Your task to perform on an android device: uninstall "Firefox Browser" Image 0: 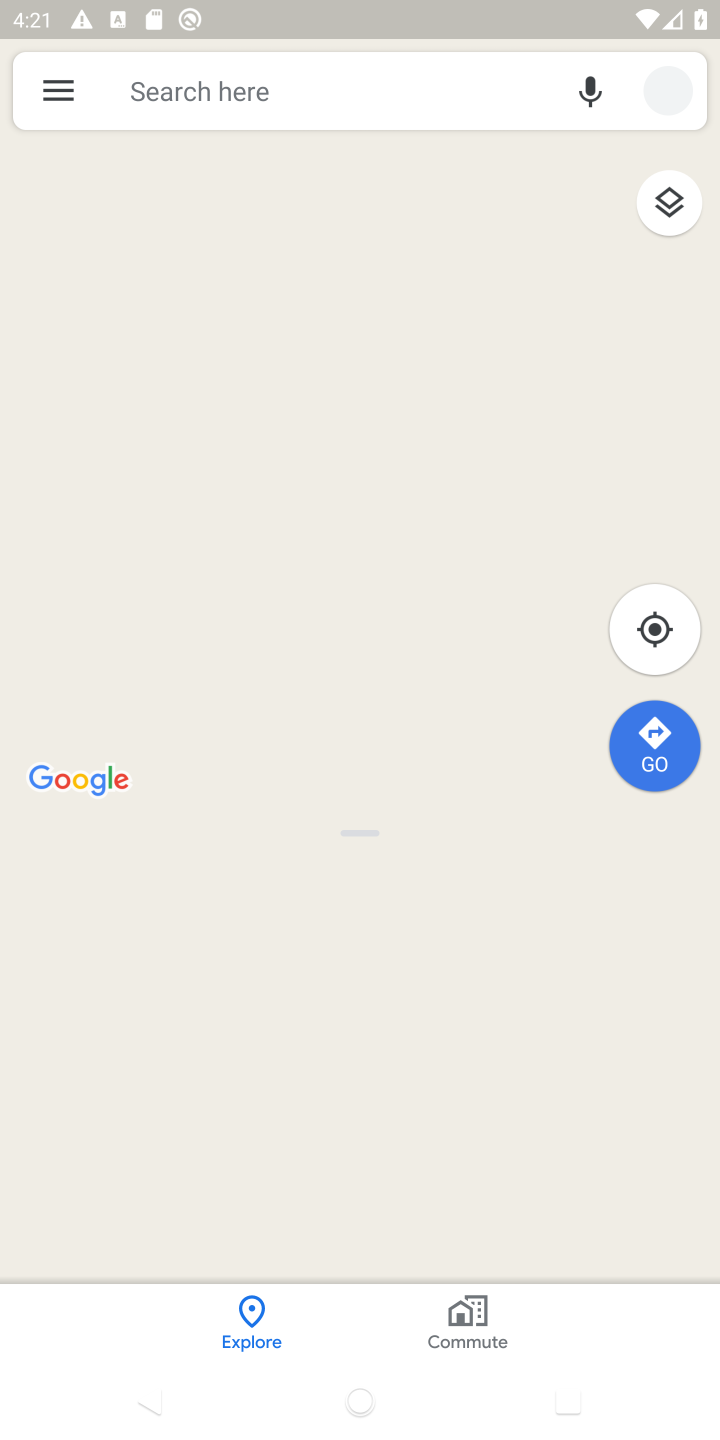
Step 0: press home button
Your task to perform on an android device: uninstall "Firefox Browser" Image 1: 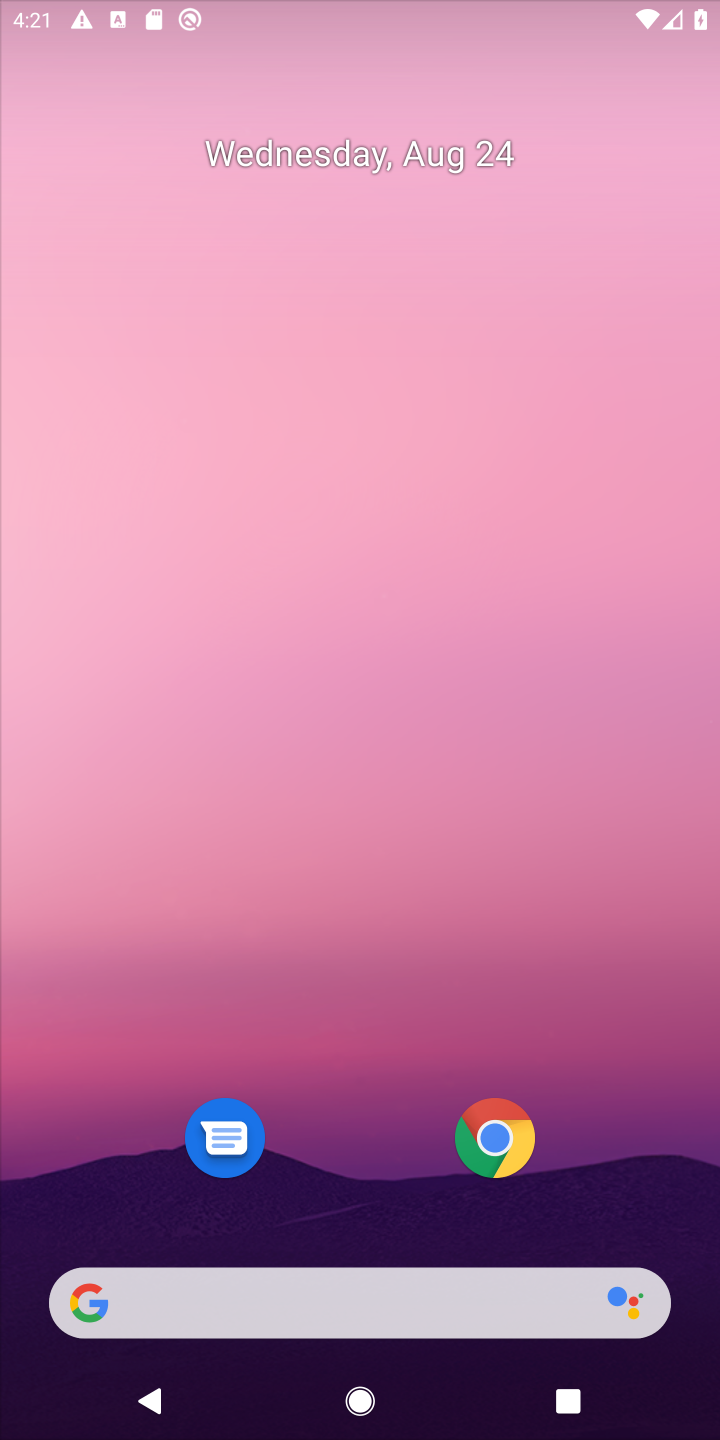
Step 1: press home button
Your task to perform on an android device: uninstall "Firefox Browser" Image 2: 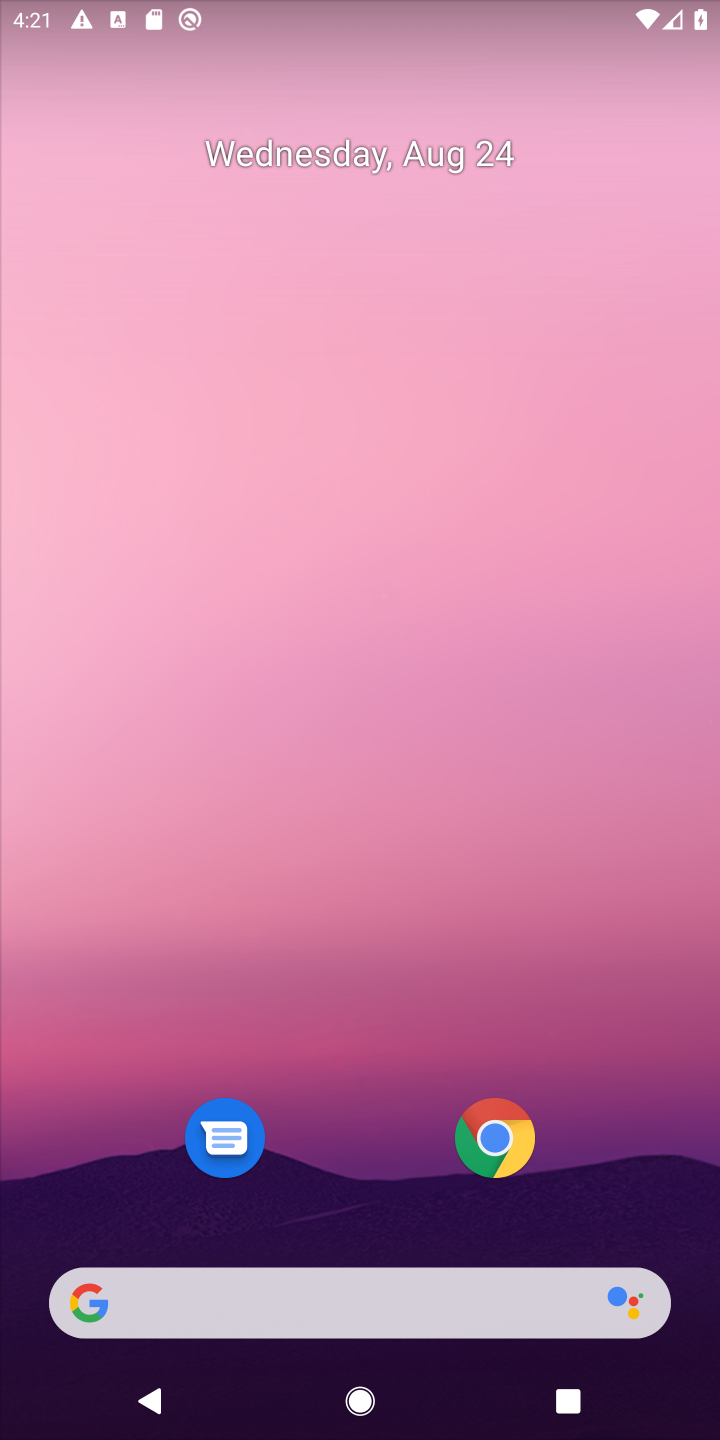
Step 2: drag from (414, 836) to (408, 251)
Your task to perform on an android device: uninstall "Firefox Browser" Image 3: 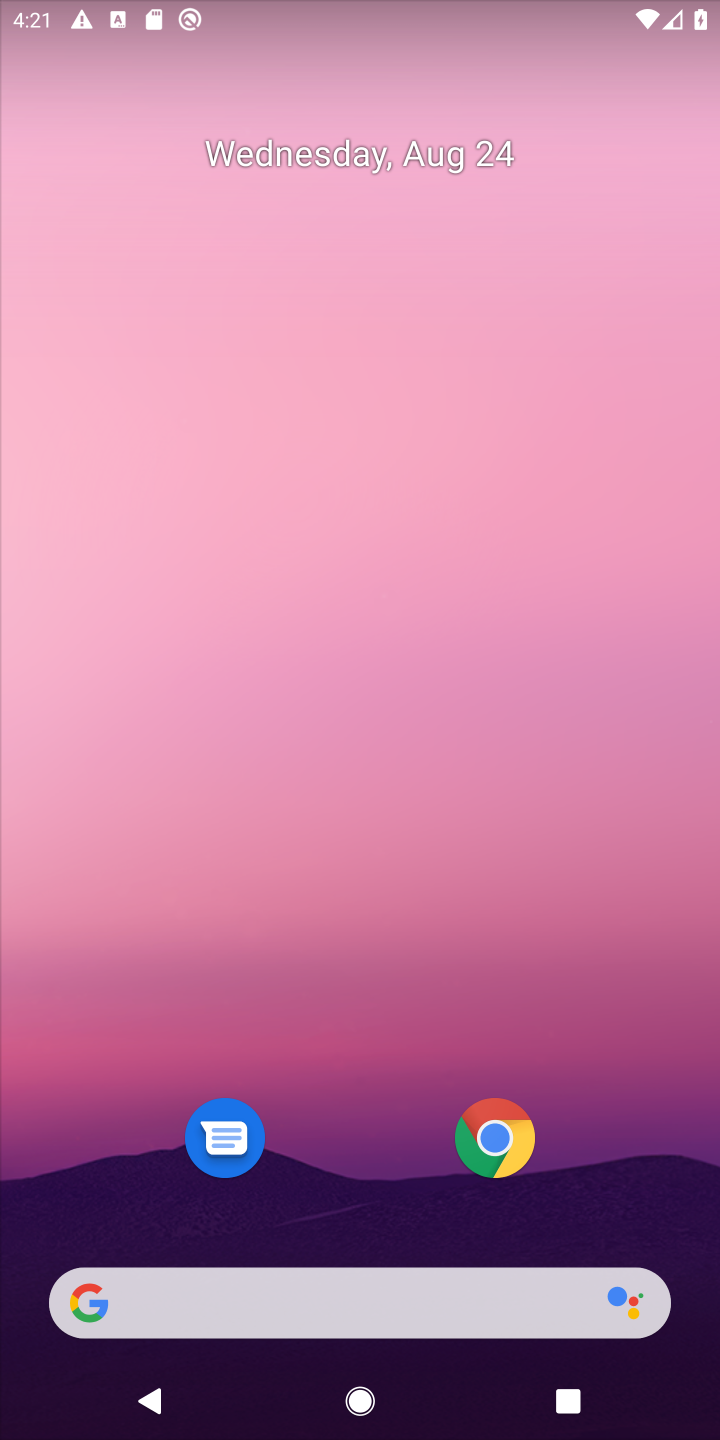
Step 3: drag from (384, 1229) to (332, 149)
Your task to perform on an android device: uninstall "Firefox Browser" Image 4: 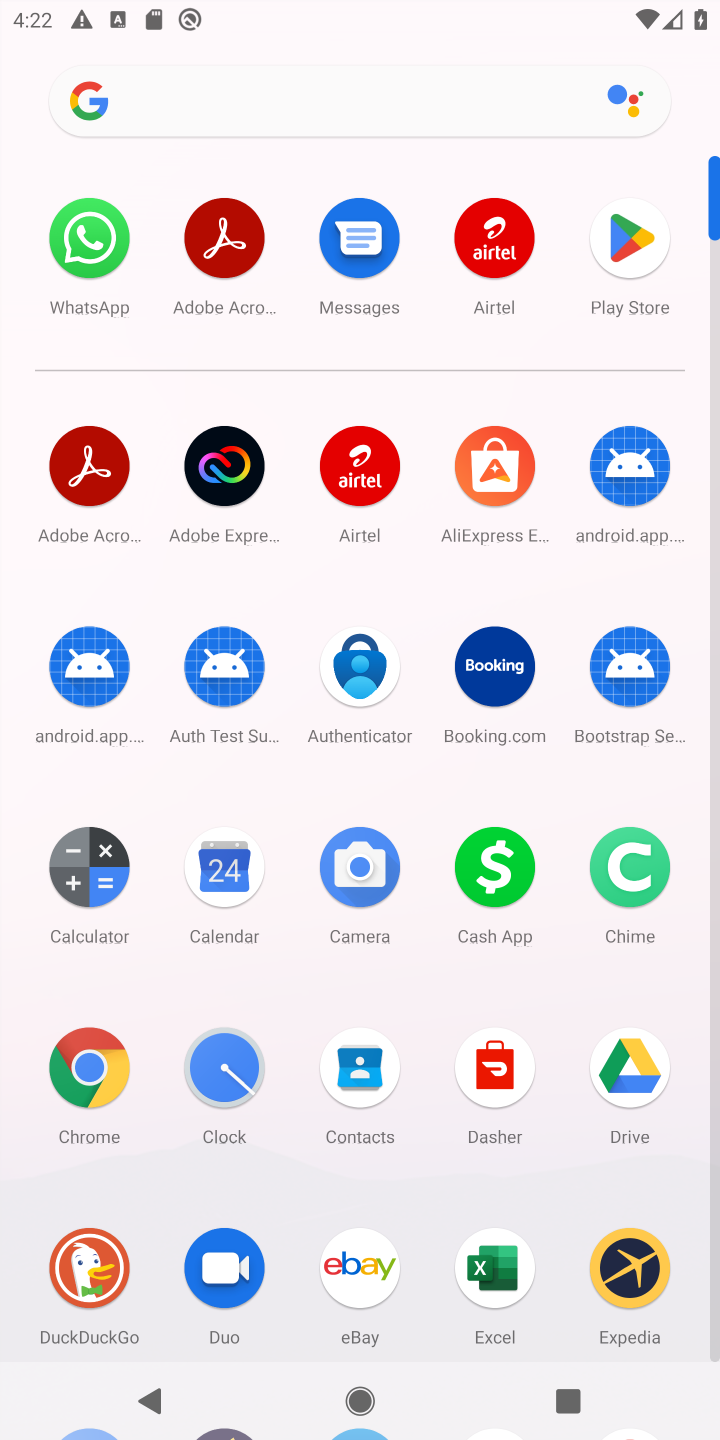
Step 4: drag from (443, 1271) to (417, 527)
Your task to perform on an android device: uninstall "Firefox Browser" Image 5: 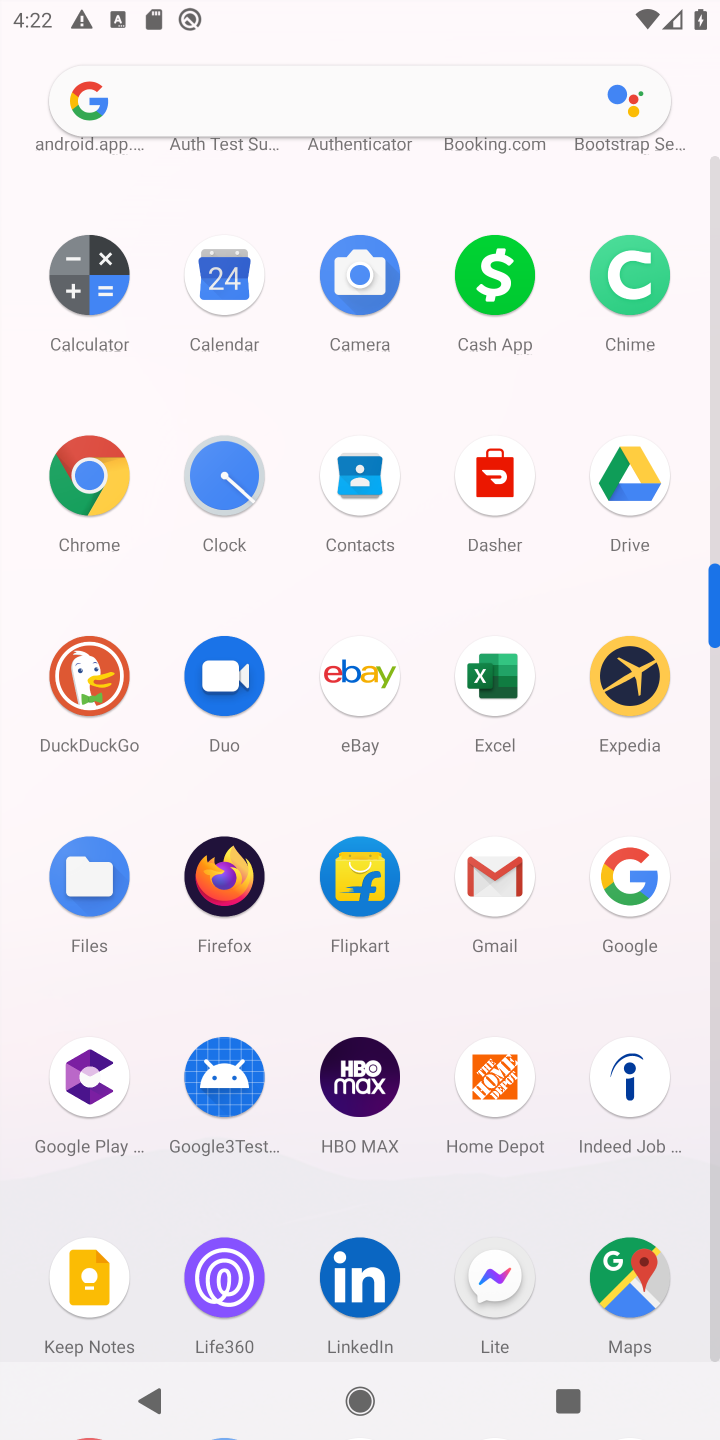
Step 5: drag from (425, 1214) to (403, 446)
Your task to perform on an android device: uninstall "Firefox Browser" Image 6: 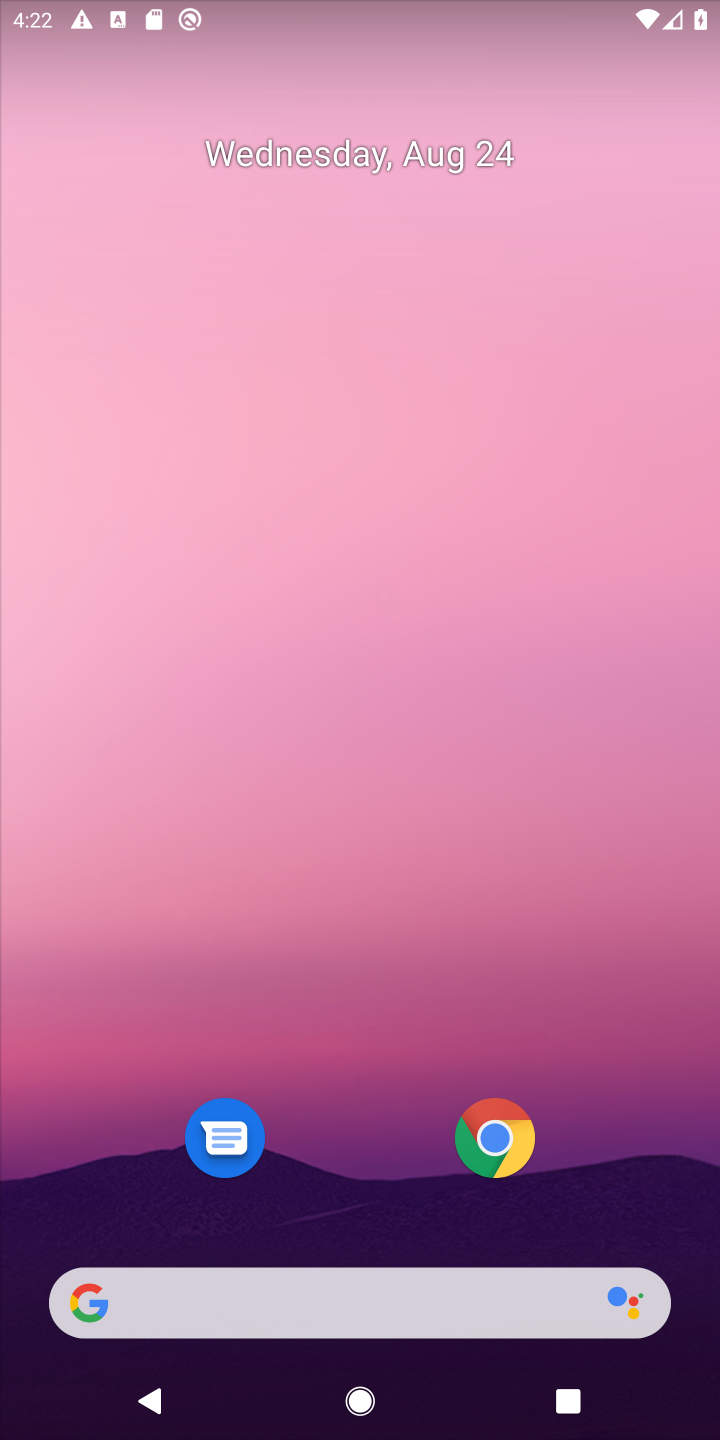
Step 6: drag from (406, 983) to (377, 559)
Your task to perform on an android device: uninstall "Firefox Browser" Image 7: 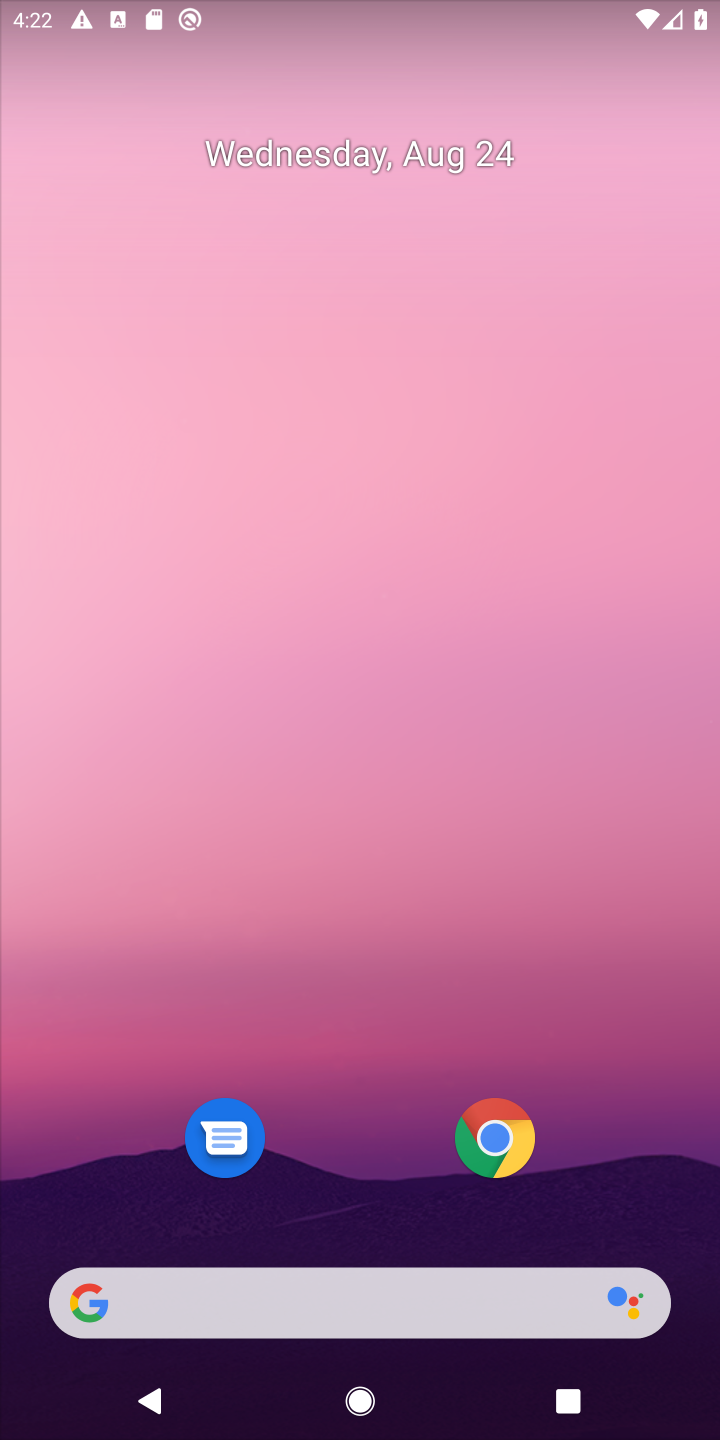
Step 7: drag from (368, 1244) to (314, 86)
Your task to perform on an android device: uninstall "Firefox Browser" Image 8: 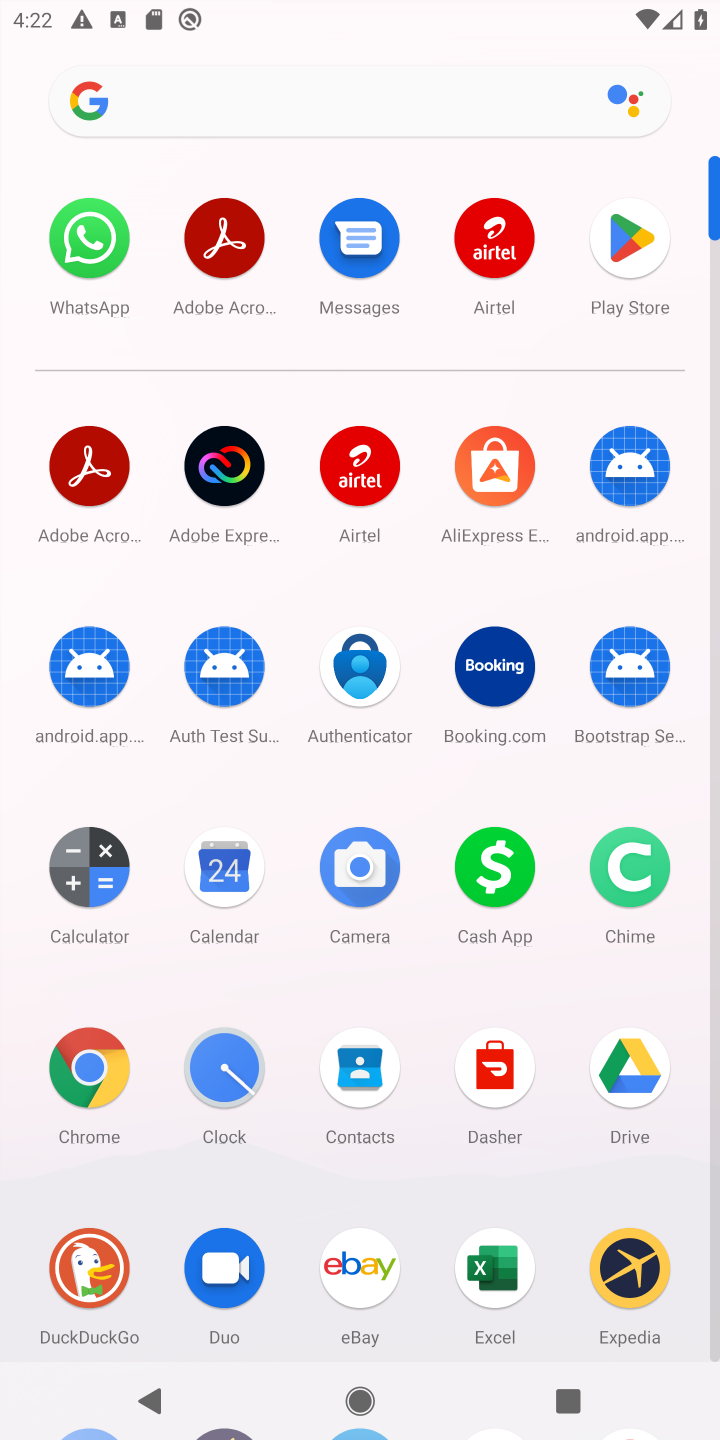
Step 8: drag from (433, 1066) to (373, 361)
Your task to perform on an android device: uninstall "Firefox Browser" Image 9: 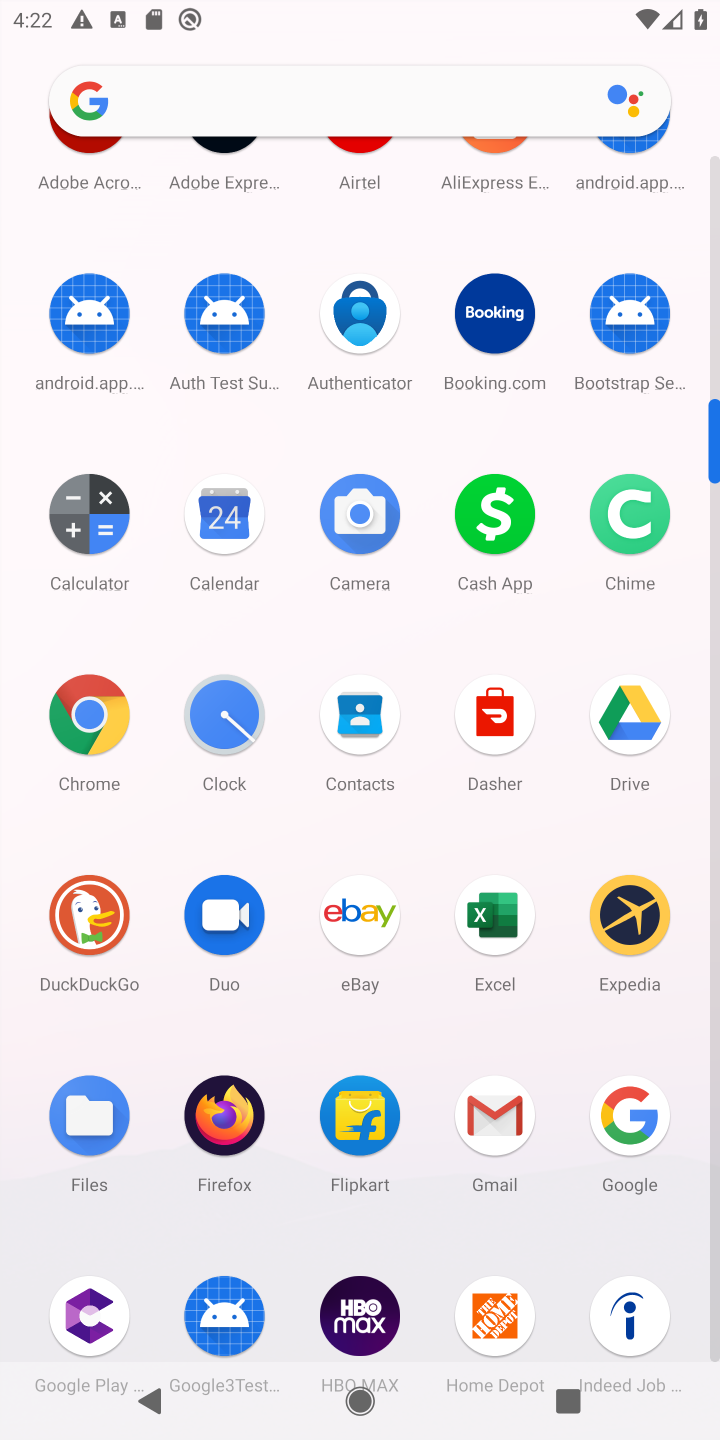
Step 9: drag from (437, 1005) to (379, 453)
Your task to perform on an android device: uninstall "Firefox Browser" Image 10: 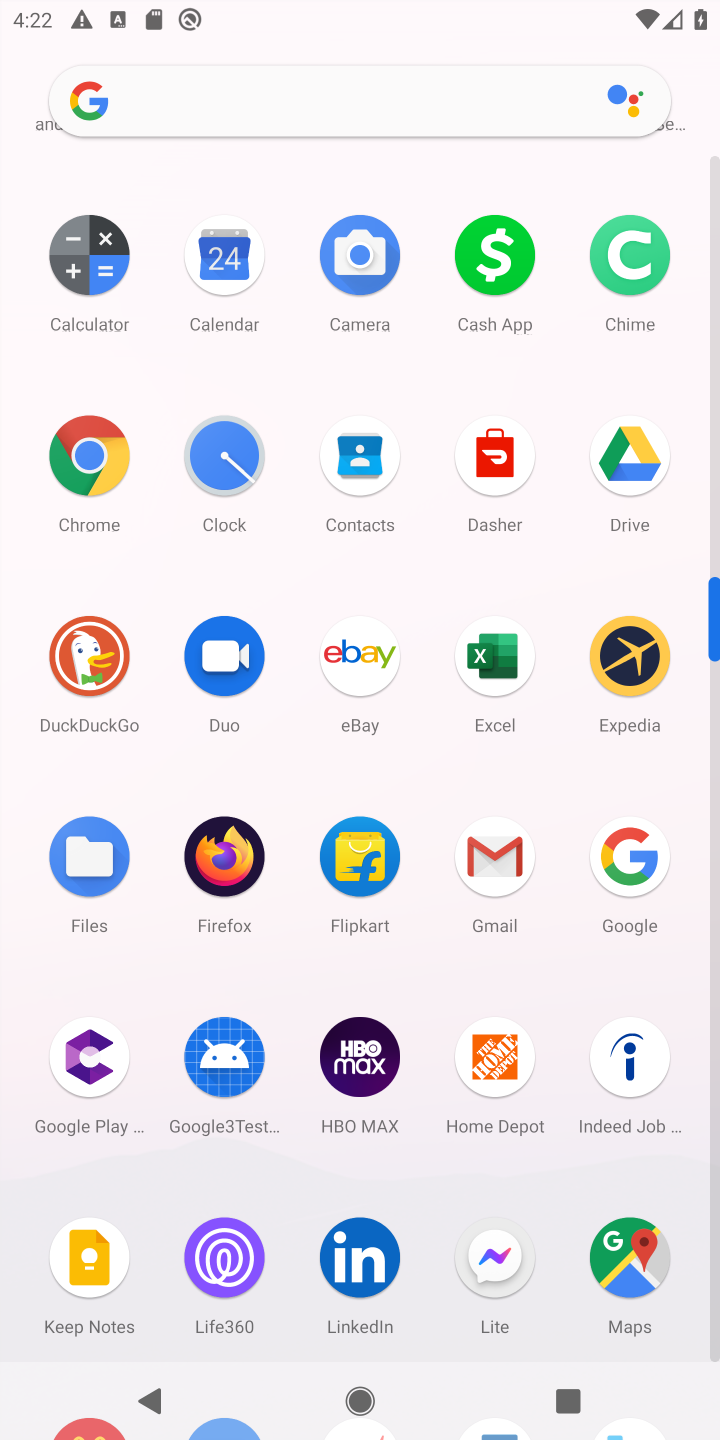
Step 10: drag from (443, 1218) to (345, 381)
Your task to perform on an android device: uninstall "Firefox Browser" Image 11: 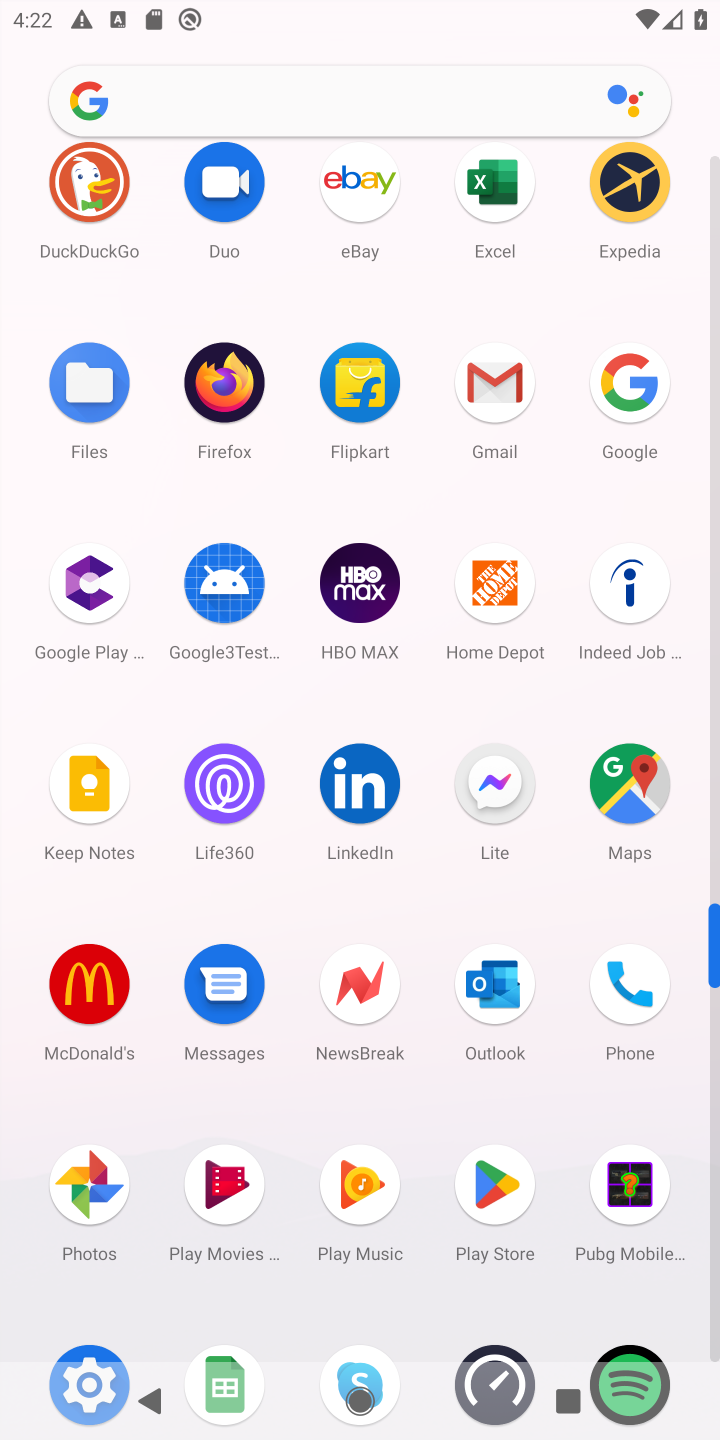
Step 11: drag from (426, 1060) to (401, 315)
Your task to perform on an android device: uninstall "Firefox Browser" Image 12: 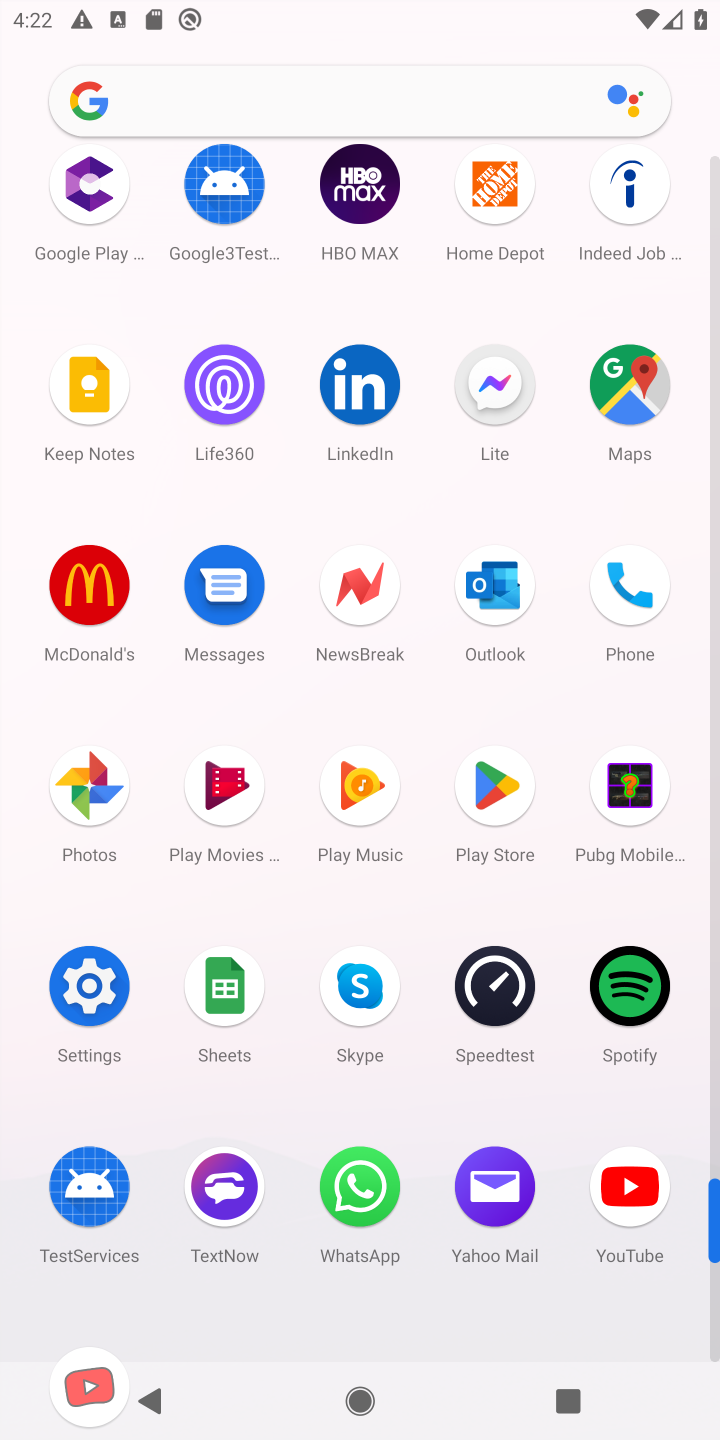
Step 12: click (487, 784)
Your task to perform on an android device: uninstall "Firefox Browser" Image 13: 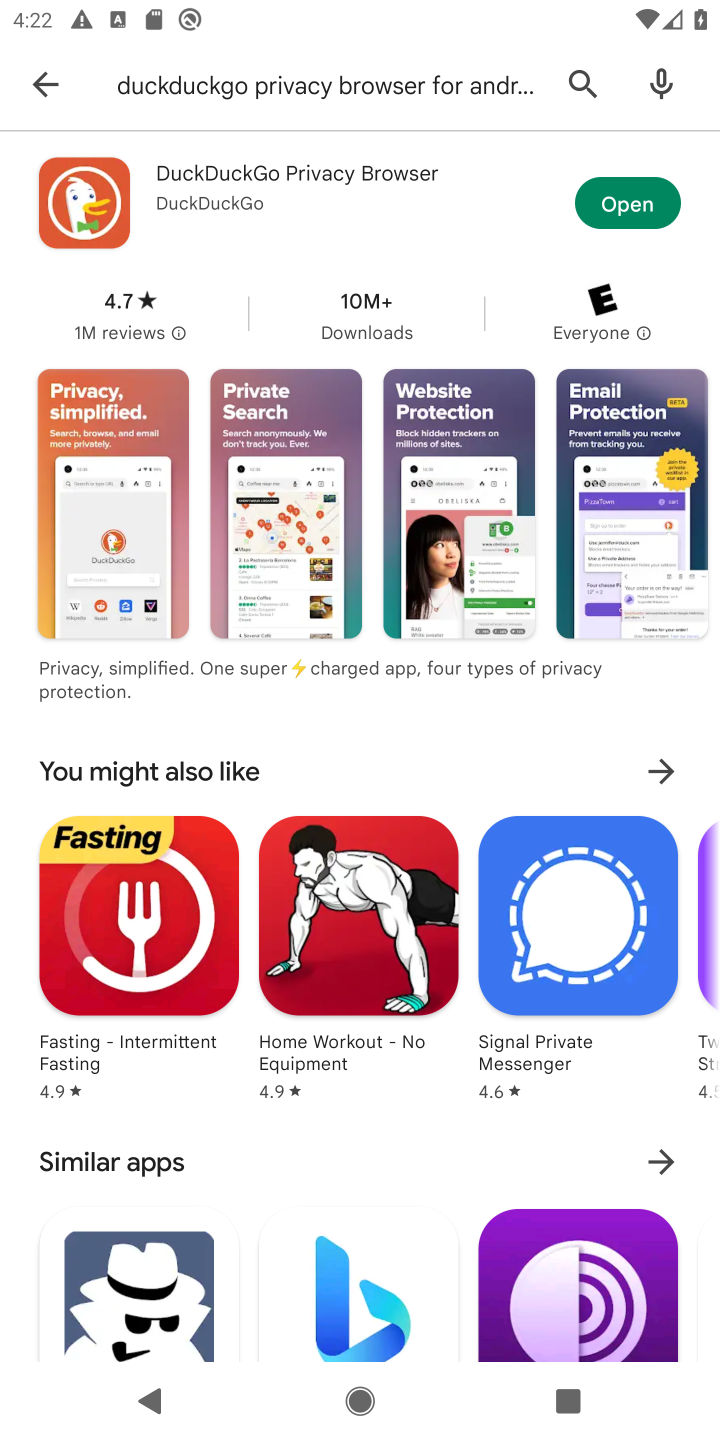
Step 13: click (573, 65)
Your task to perform on an android device: uninstall "Firefox Browser" Image 14: 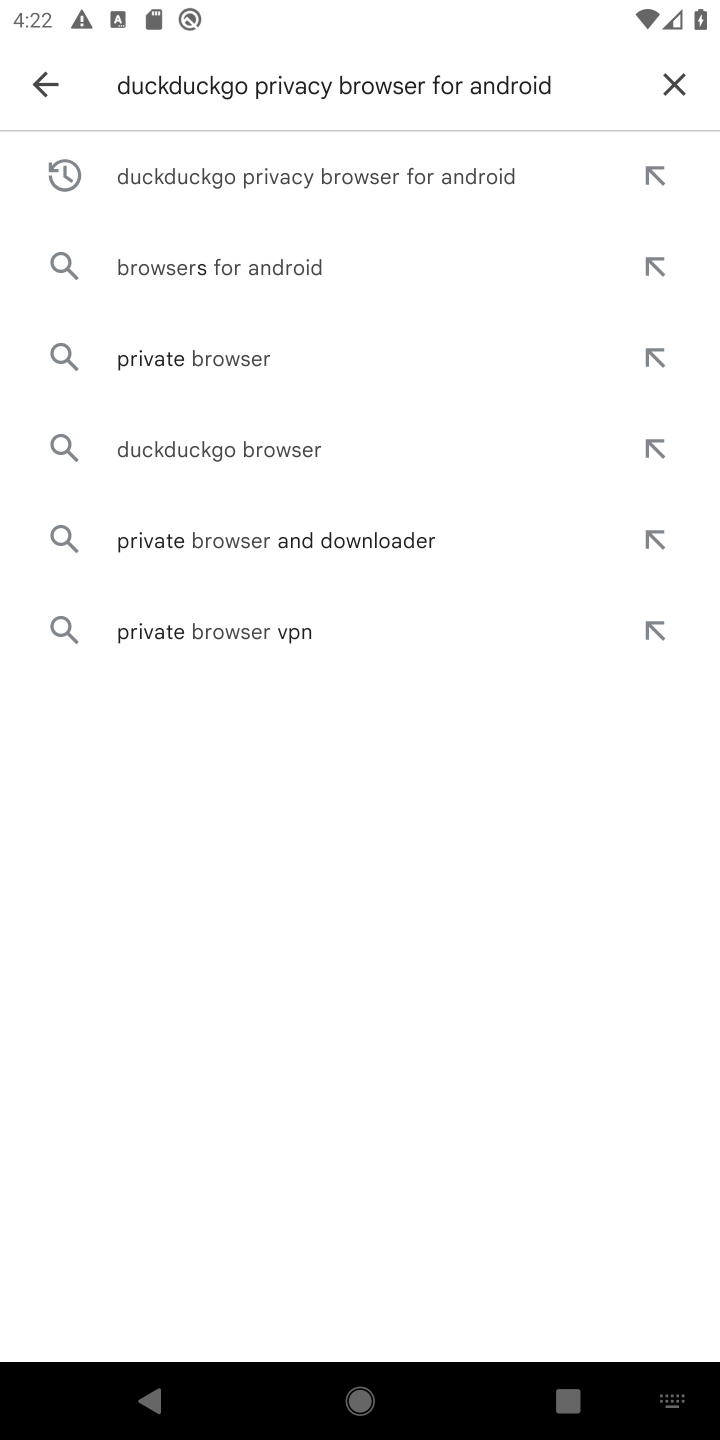
Step 14: click (683, 80)
Your task to perform on an android device: uninstall "Firefox Browser" Image 15: 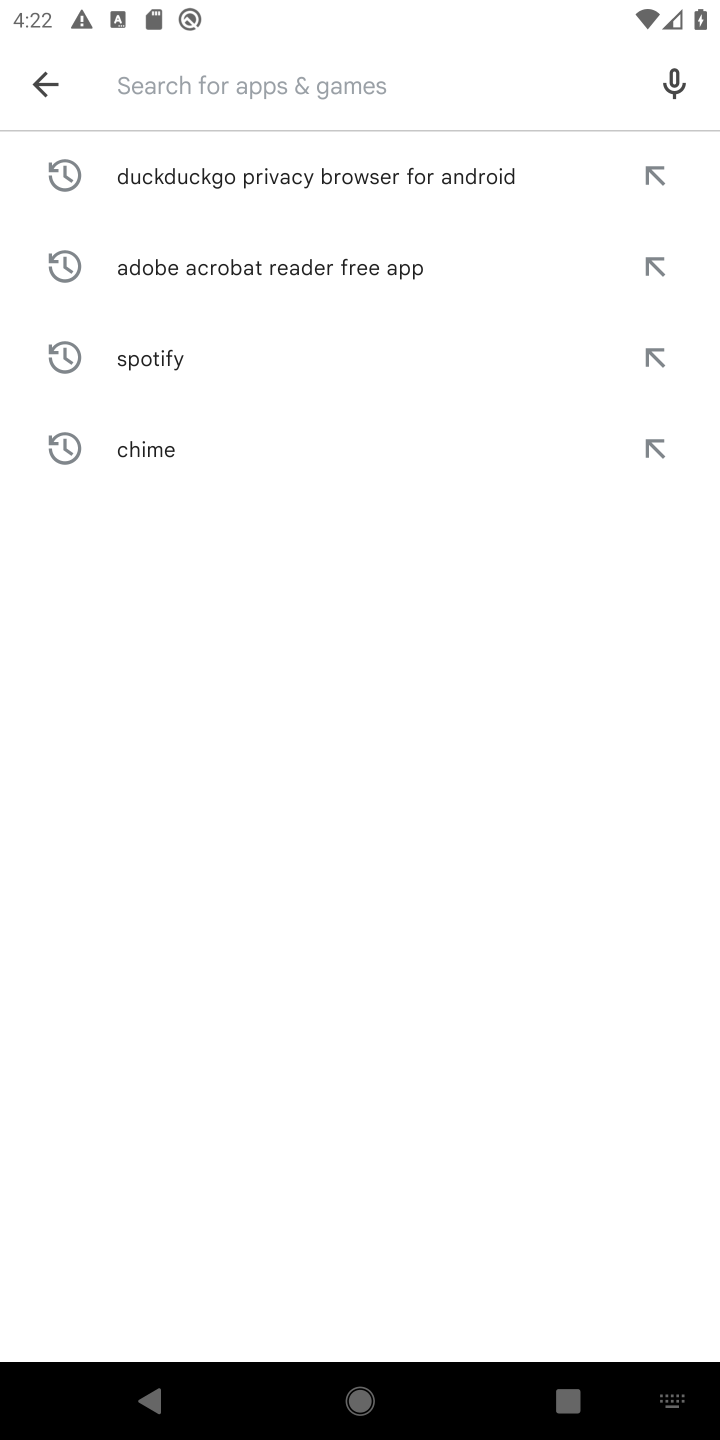
Step 15: type "Firefox Browser"
Your task to perform on an android device: uninstall "Firefox Browser" Image 16: 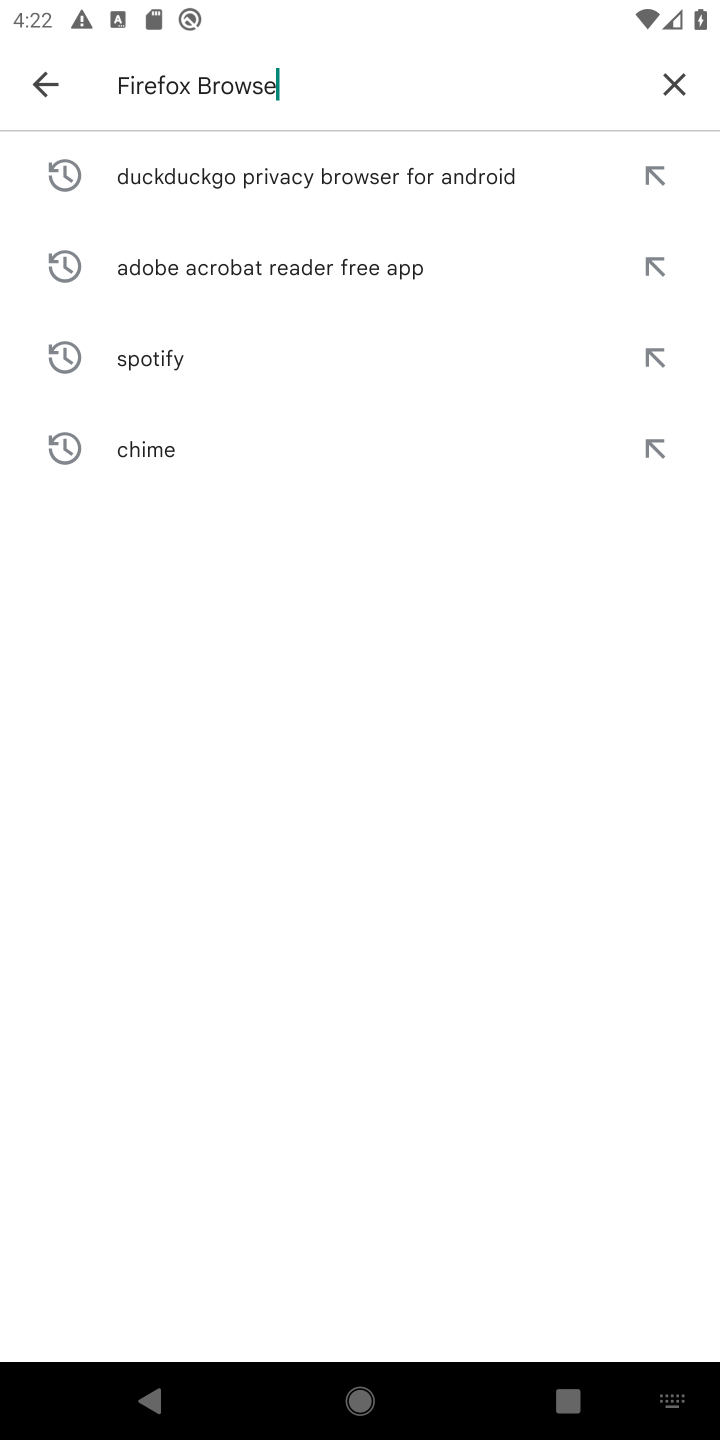
Step 16: type ""
Your task to perform on an android device: uninstall "Firefox Browser" Image 17: 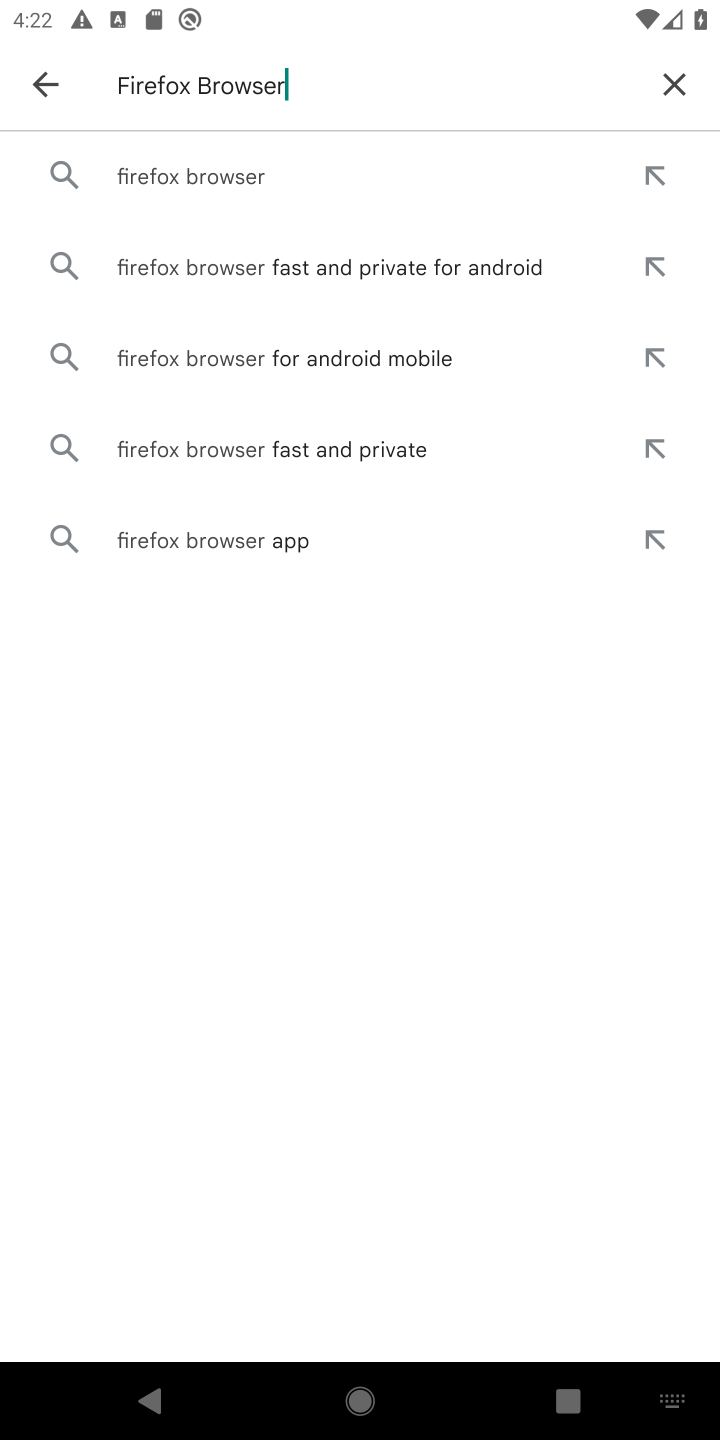
Step 17: click (226, 177)
Your task to perform on an android device: uninstall "Firefox Browser" Image 18: 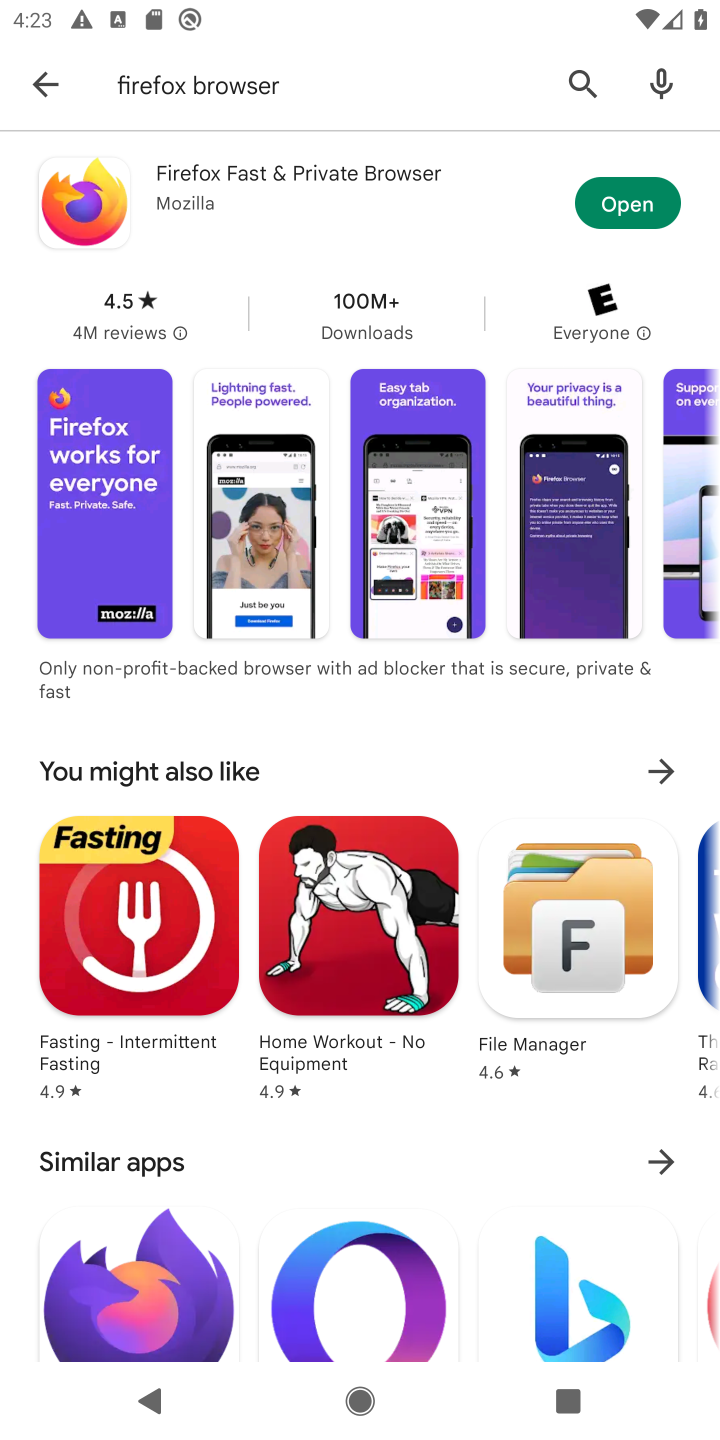
Step 18: click (326, 171)
Your task to perform on an android device: uninstall "Firefox Browser" Image 19: 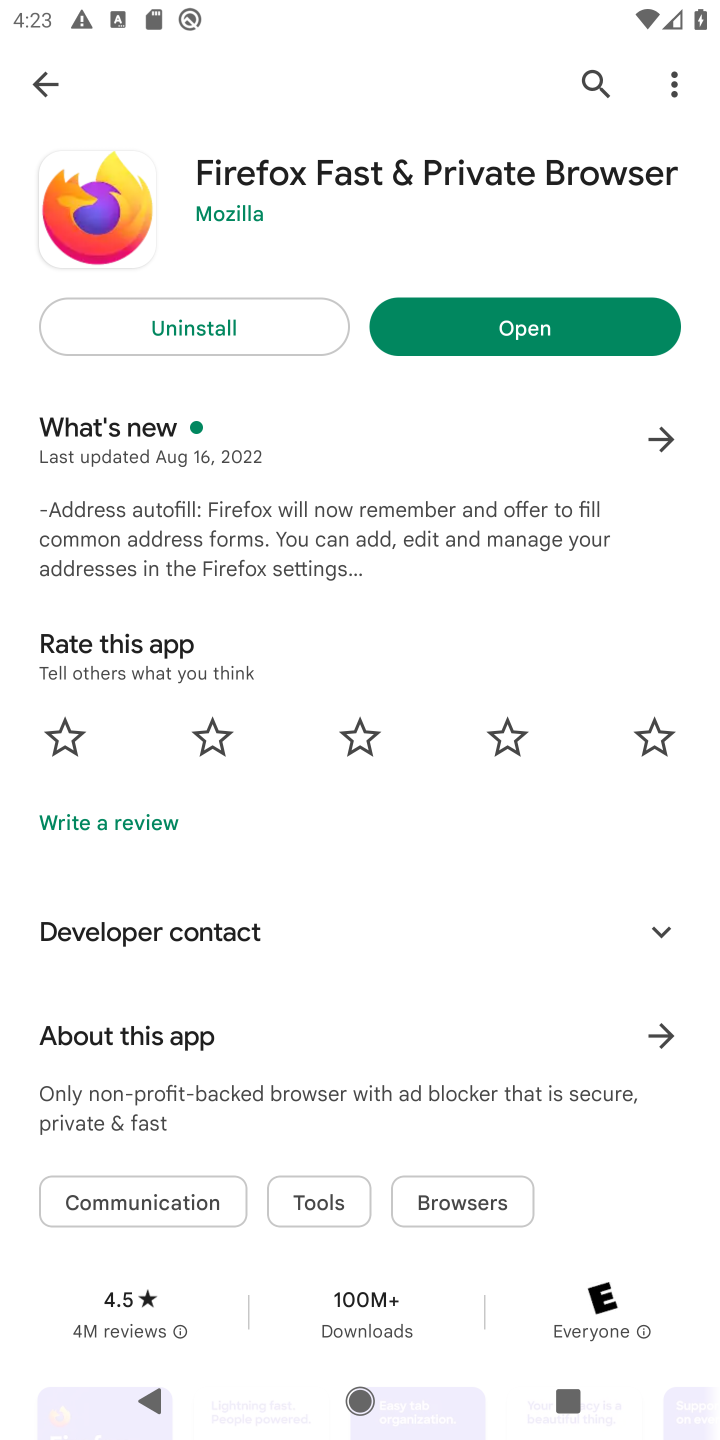
Step 19: click (170, 326)
Your task to perform on an android device: uninstall "Firefox Browser" Image 20: 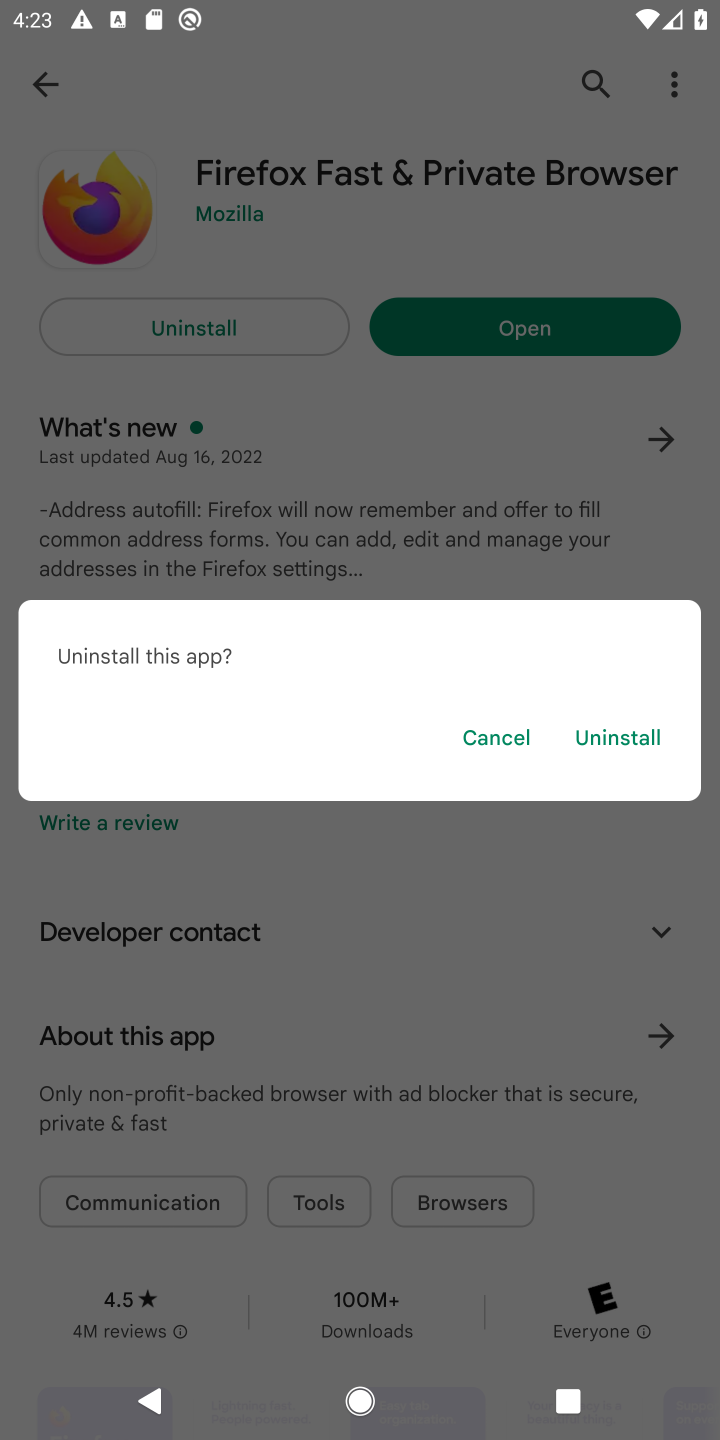
Step 20: click (620, 738)
Your task to perform on an android device: uninstall "Firefox Browser" Image 21: 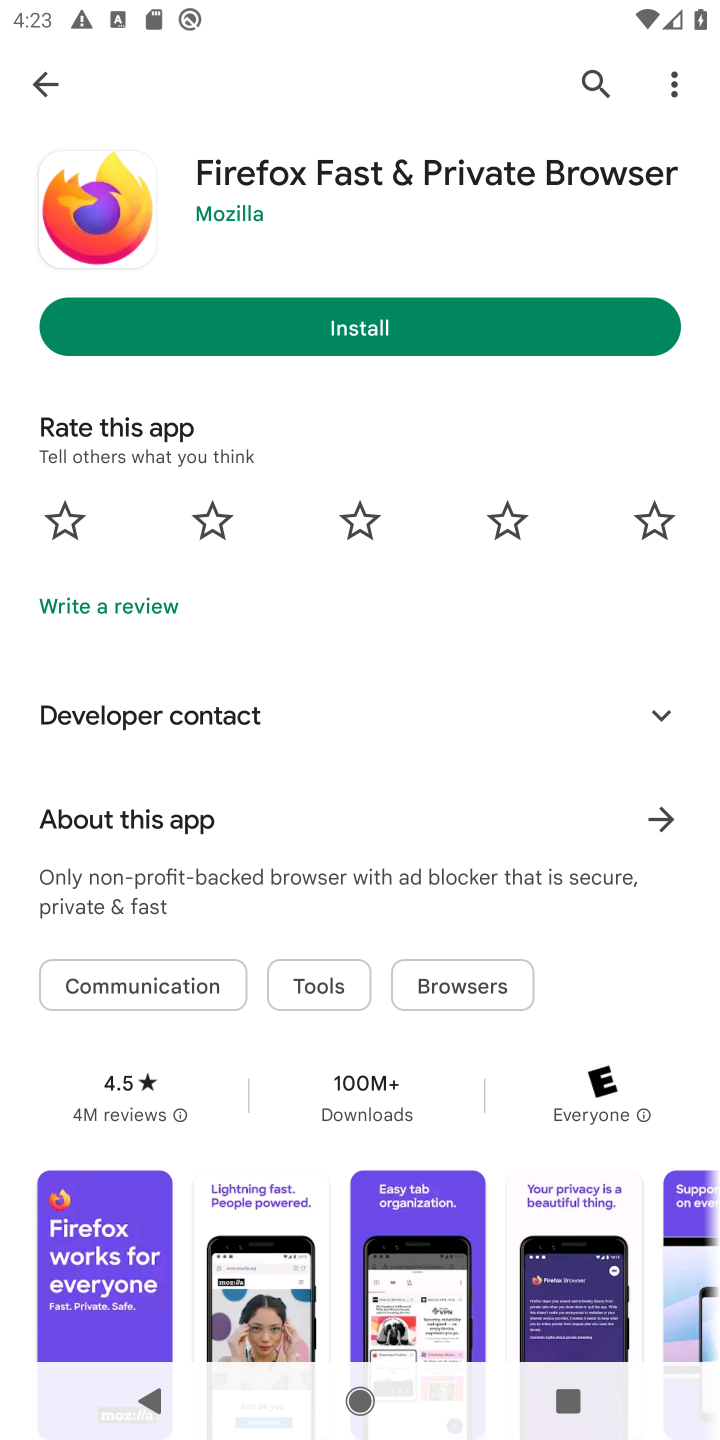
Step 21: task complete